Your task to perform on an android device: Open ESPN.com Image 0: 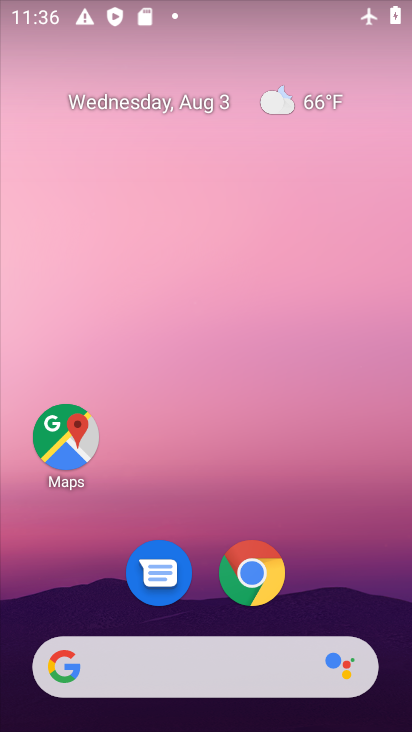
Step 0: drag from (371, 509) to (326, 90)
Your task to perform on an android device: Open ESPN.com Image 1: 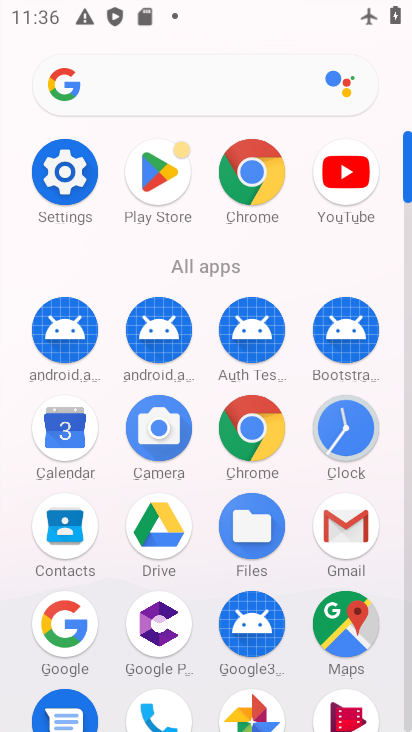
Step 1: click (251, 176)
Your task to perform on an android device: Open ESPN.com Image 2: 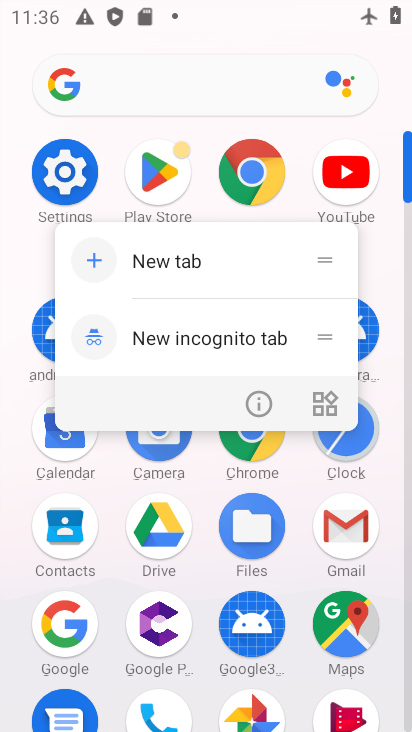
Step 2: click (255, 440)
Your task to perform on an android device: Open ESPN.com Image 3: 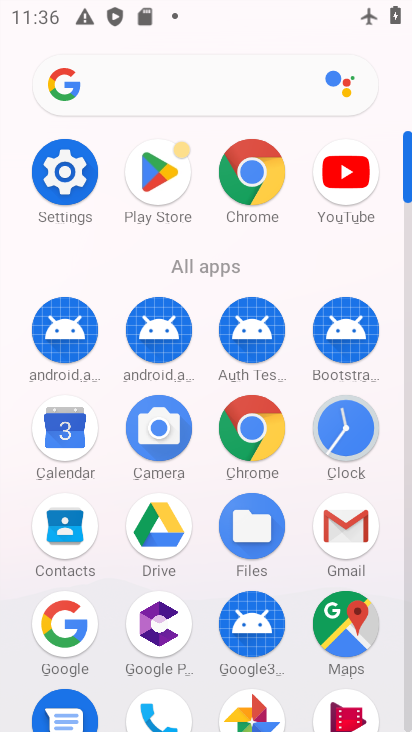
Step 3: click (254, 429)
Your task to perform on an android device: Open ESPN.com Image 4: 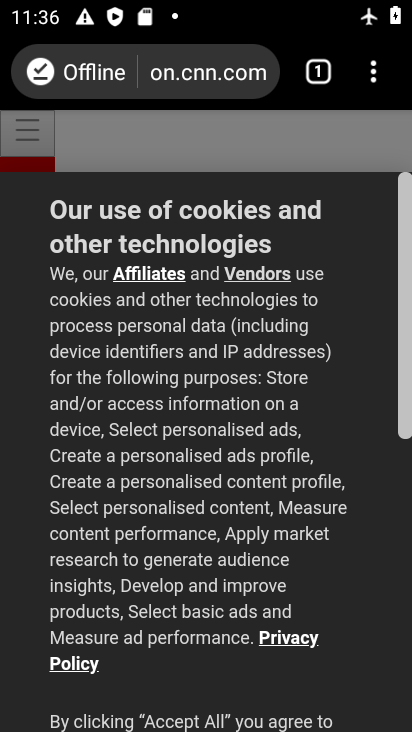
Step 4: click (220, 63)
Your task to perform on an android device: Open ESPN.com Image 5: 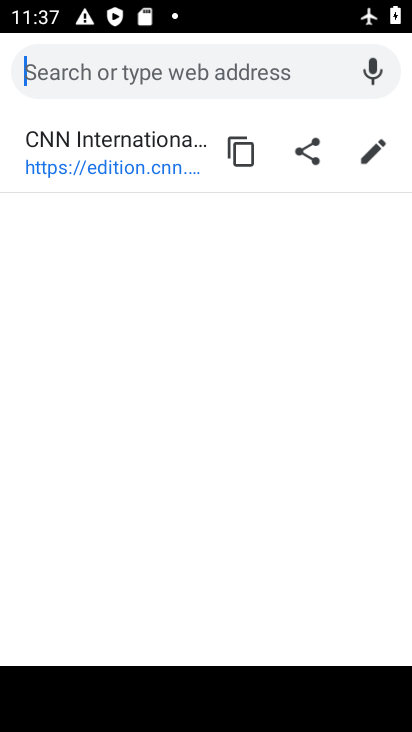
Step 5: type "espn.com"
Your task to perform on an android device: Open ESPN.com Image 6: 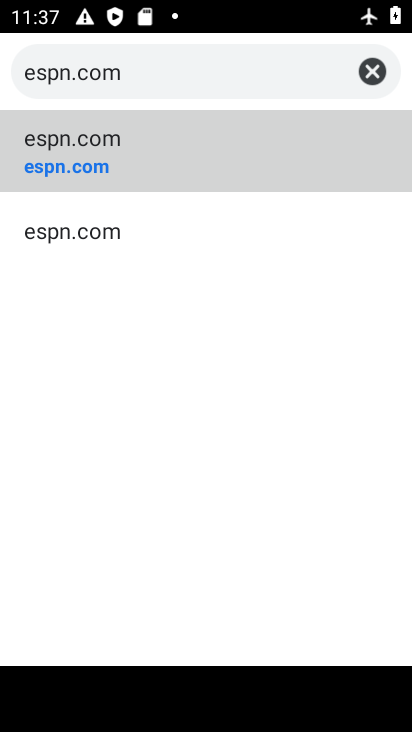
Step 6: click (101, 168)
Your task to perform on an android device: Open ESPN.com Image 7: 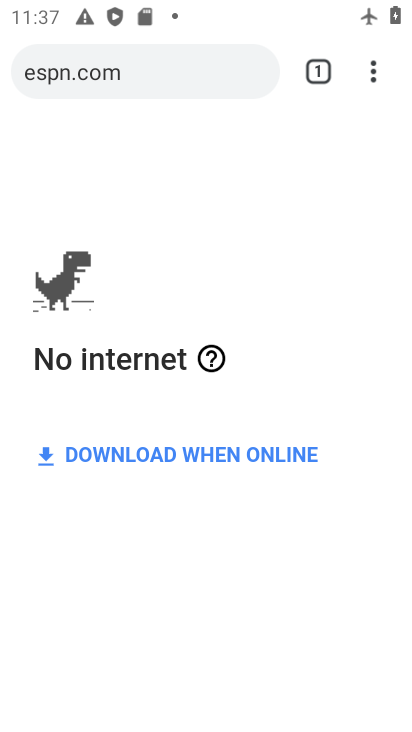
Step 7: task complete